Your task to perform on an android device: What's the weather going to be this weekend? Image 0: 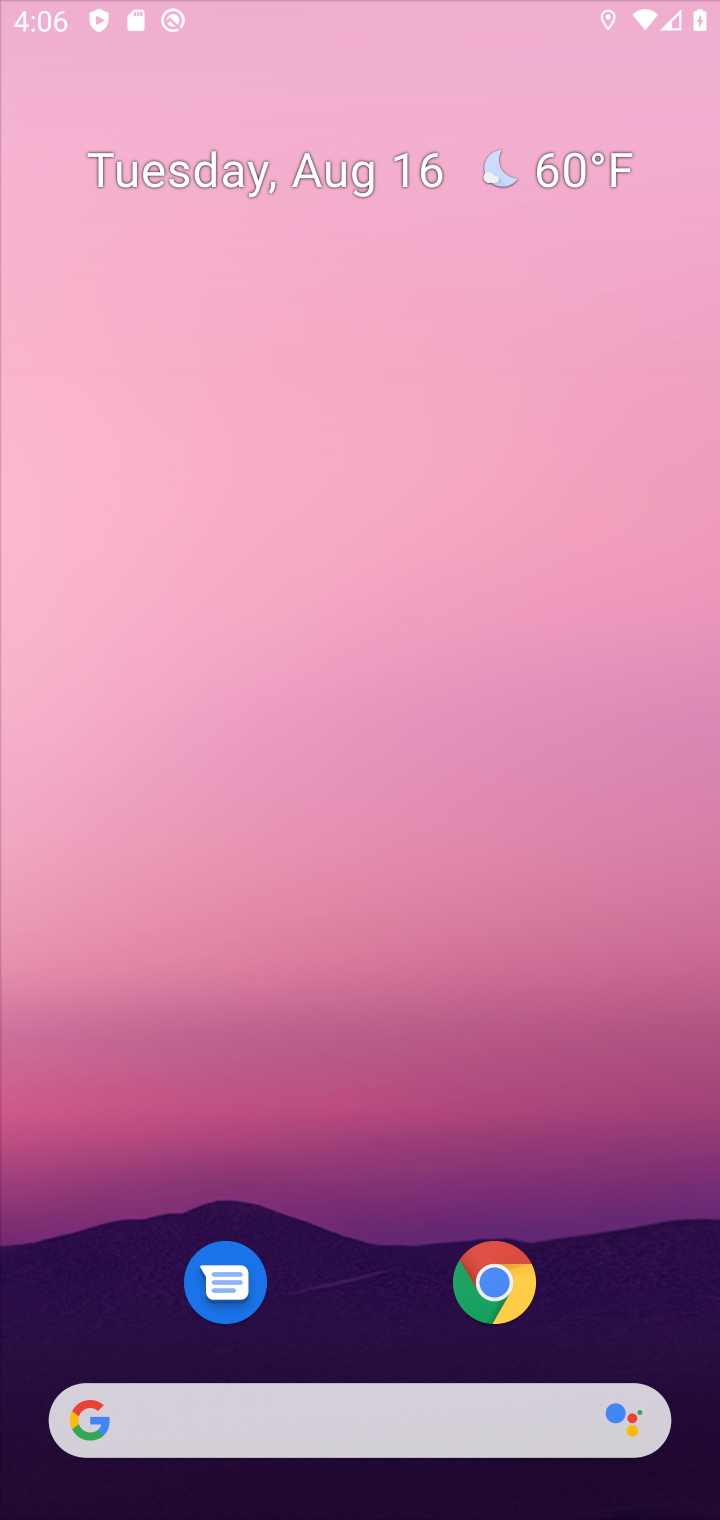
Step 0: press back button
Your task to perform on an android device: What's the weather going to be this weekend? Image 1: 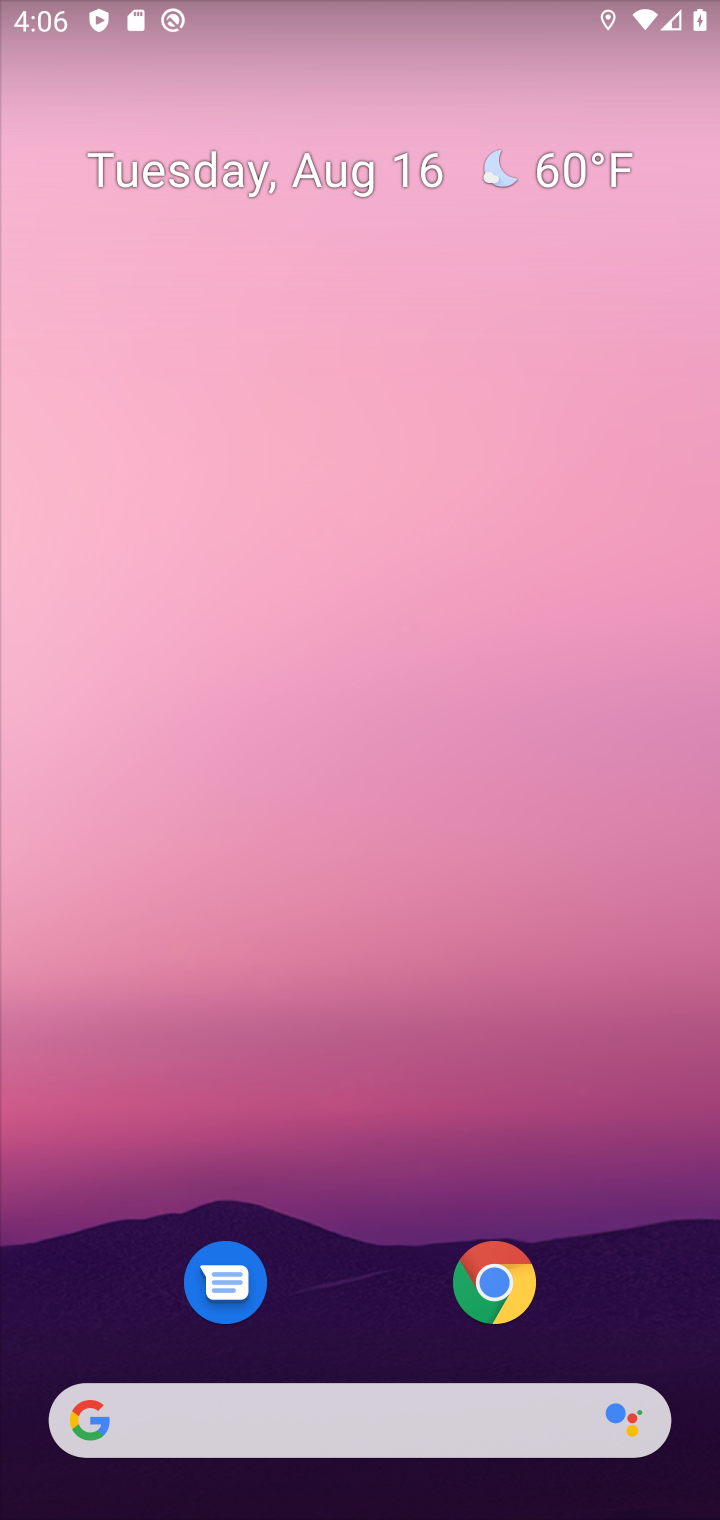
Step 1: click (325, 1439)
Your task to perform on an android device: What's the weather going to be this weekend? Image 2: 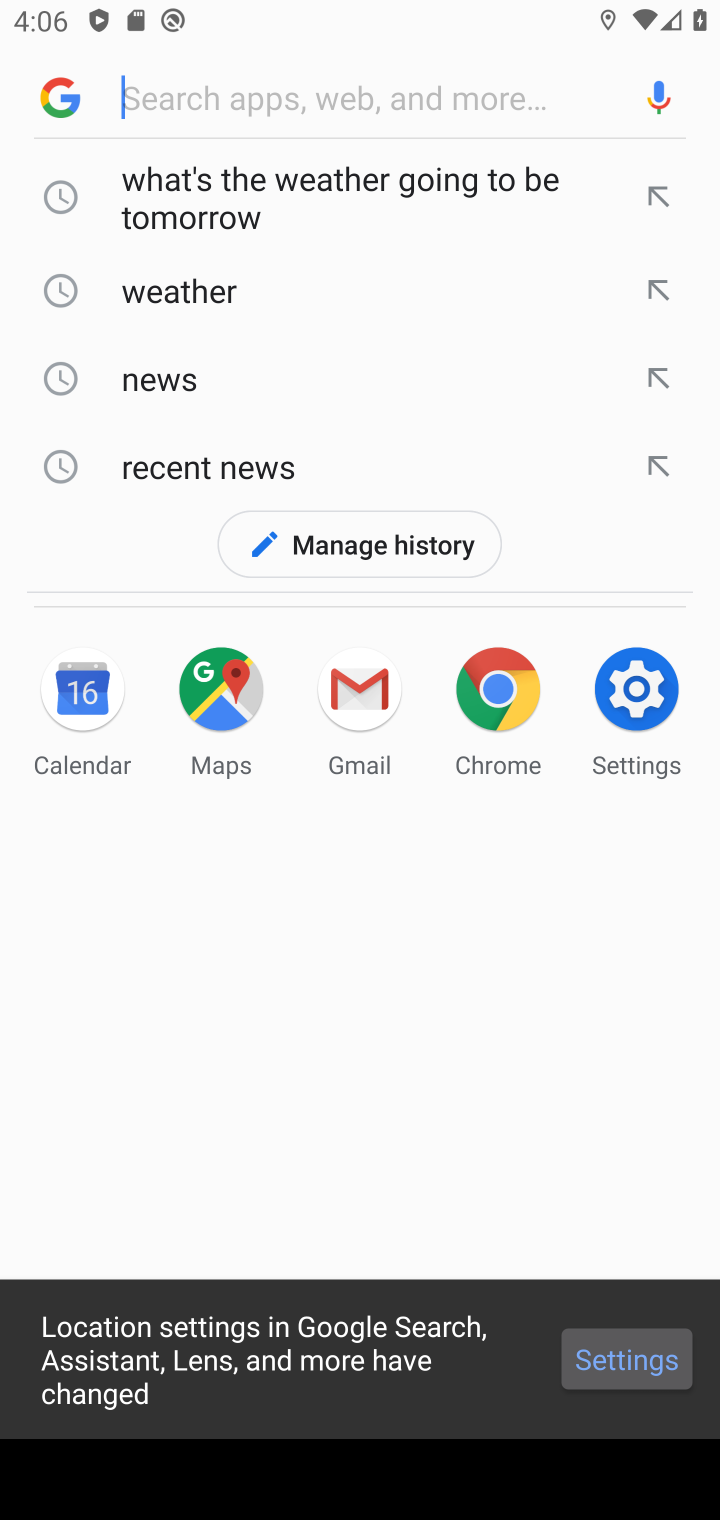
Step 2: click (232, 283)
Your task to perform on an android device: What's the weather going to be this weekend? Image 3: 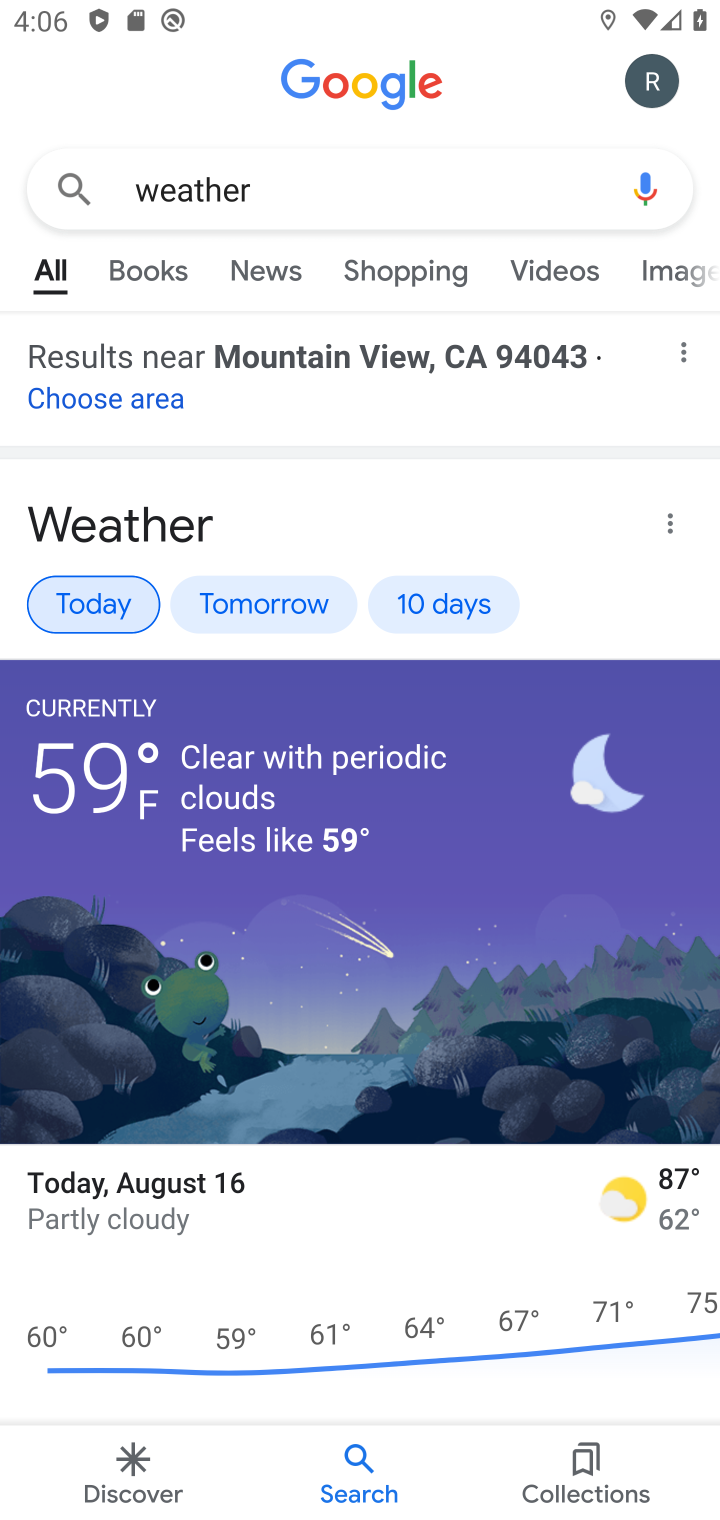
Step 3: click (505, 605)
Your task to perform on an android device: What's the weather going to be this weekend? Image 4: 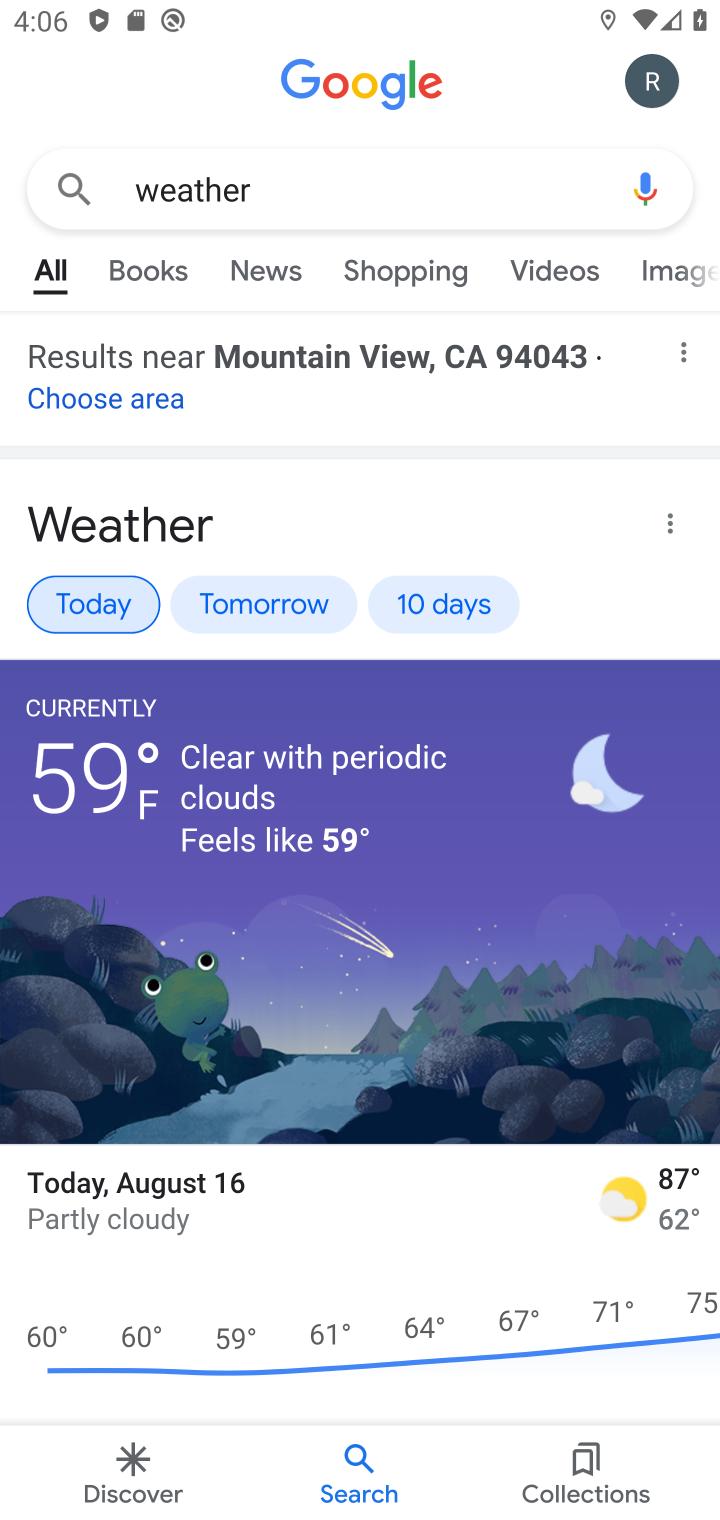
Step 4: click (441, 598)
Your task to perform on an android device: What's the weather going to be this weekend? Image 5: 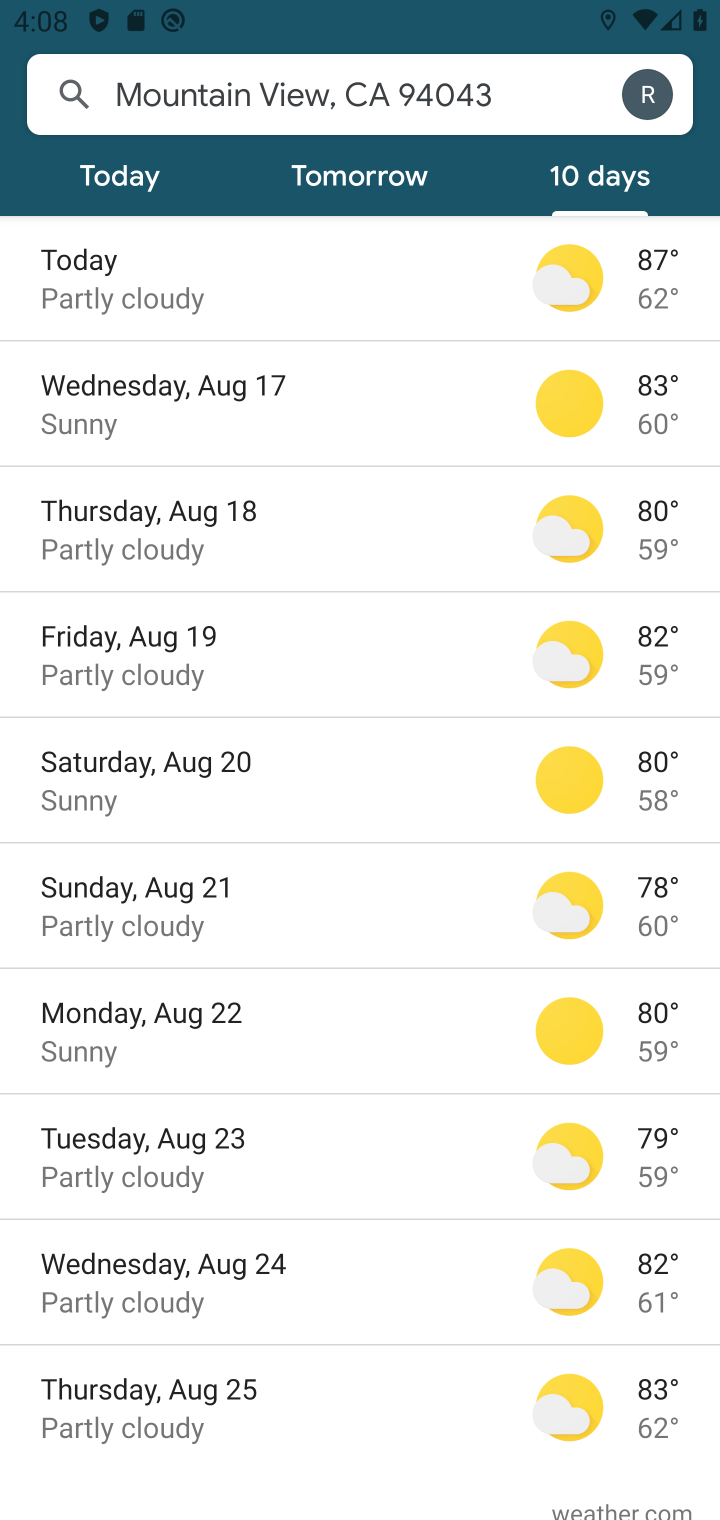
Step 5: task complete